Your task to perform on an android device: turn off priority inbox in the gmail app Image 0: 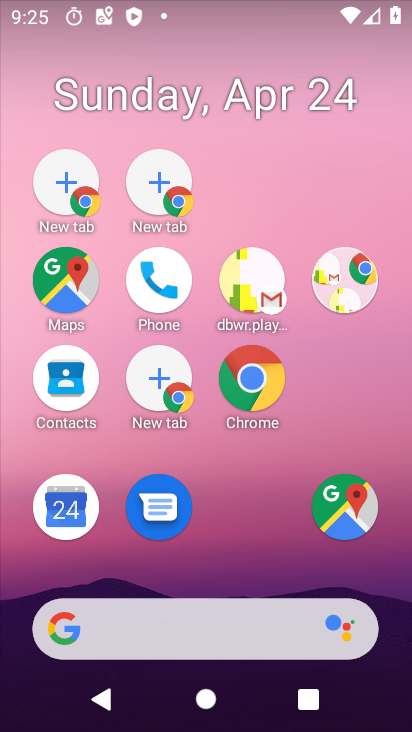
Step 0: drag from (276, 576) to (260, 142)
Your task to perform on an android device: turn off priority inbox in the gmail app Image 1: 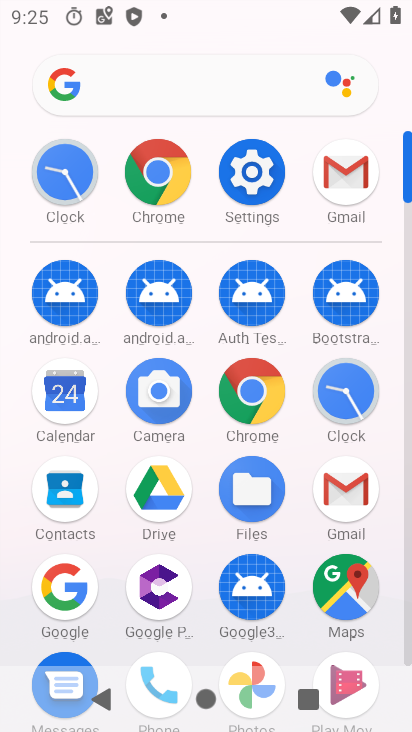
Step 1: click (333, 481)
Your task to perform on an android device: turn off priority inbox in the gmail app Image 2: 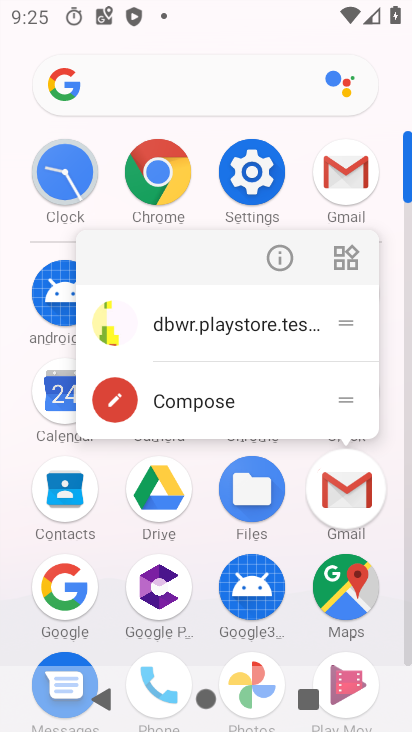
Step 2: click (334, 483)
Your task to perform on an android device: turn off priority inbox in the gmail app Image 3: 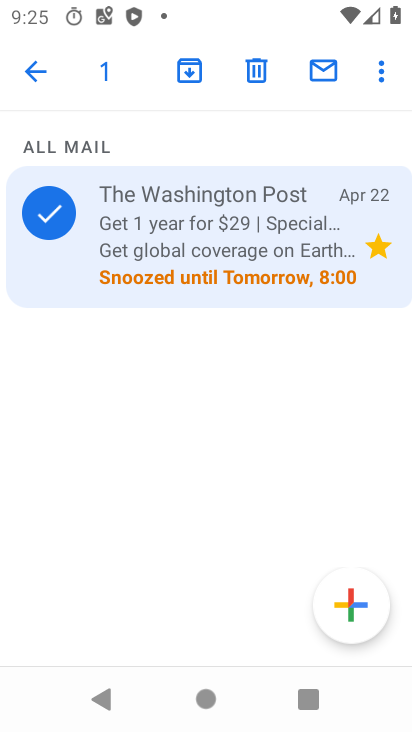
Step 3: click (21, 73)
Your task to perform on an android device: turn off priority inbox in the gmail app Image 4: 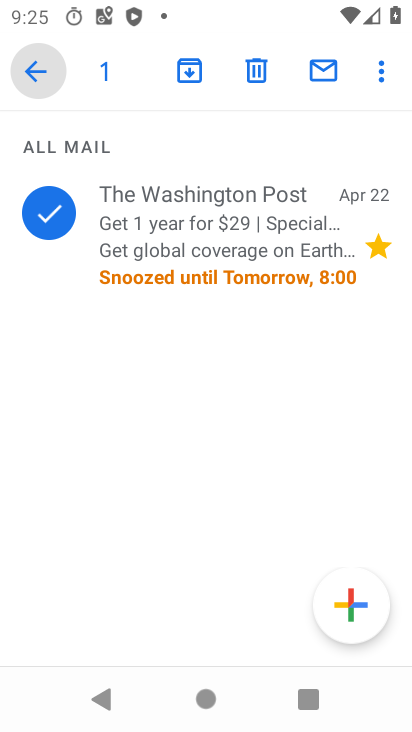
Step 4: click (23, 72)
Your task to perform on an android device: turn off priority inbox in the gmail app Image 5: 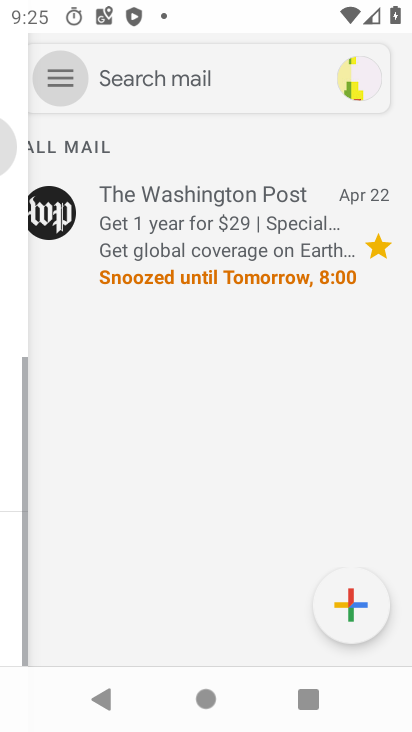
Step 5: click (23, 72)
Your task to perform on an android device: turn off priority inbox in the gmail app Image 6: 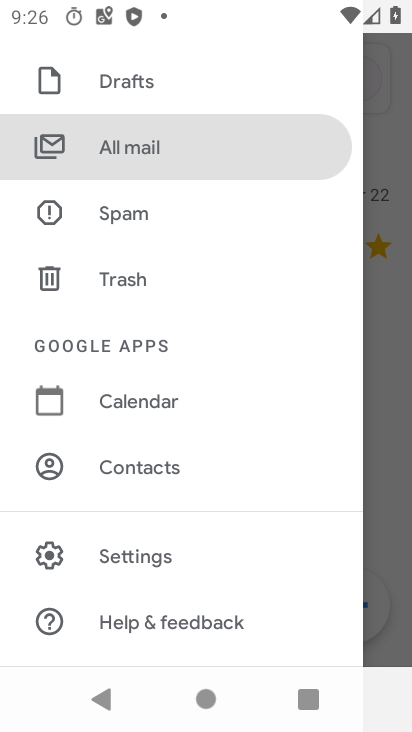
Step 6: click (131, 557)
Your task to perform on an android device: turn off priority inbox in the gmail app Image 7: 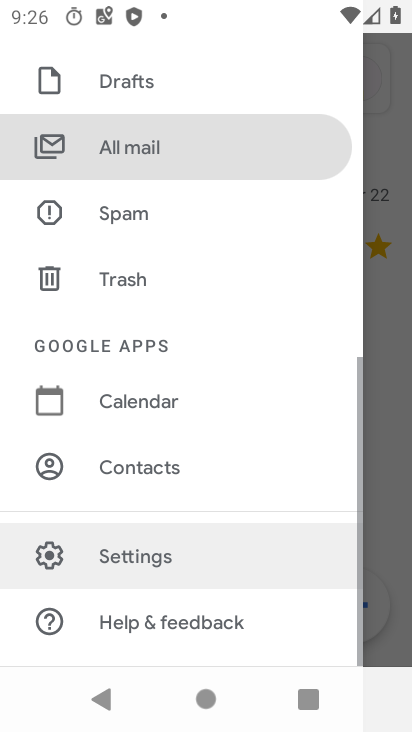
Step 7: click (131, 558)
Your task to perform on an android device: turn off priority inbox in the gmail app Image 8: 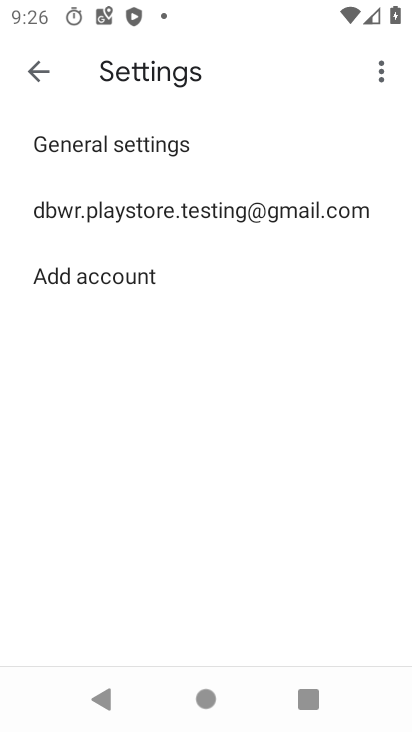
Step 8: click (127, 210)
Your task to perform on an android device: turn off priority inbox in the gmail app Image 9: 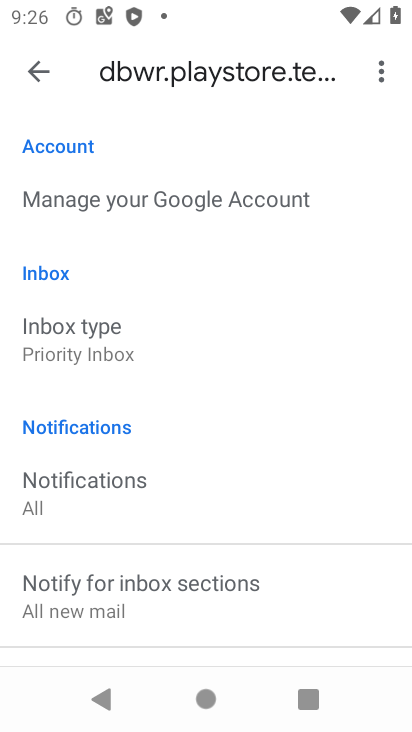
Step 9: click (61, 341)
Your task to perform on an android device: turn off priority inbox in the gmail app Image 10: 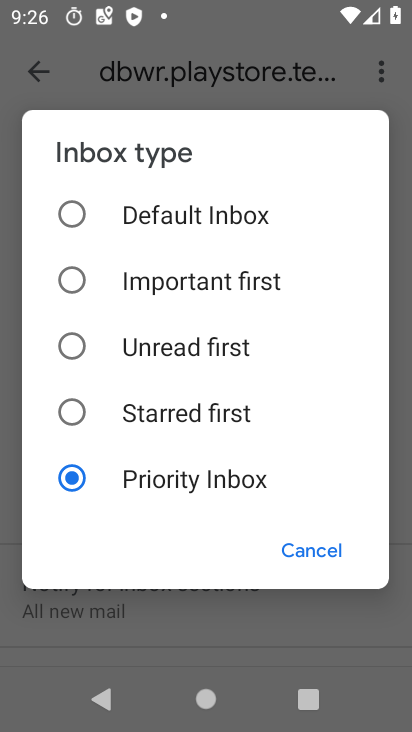
Step 10: click (63, 413)
Your task to perform on an android device: turn off priority inbox in the gmail app Image 11: 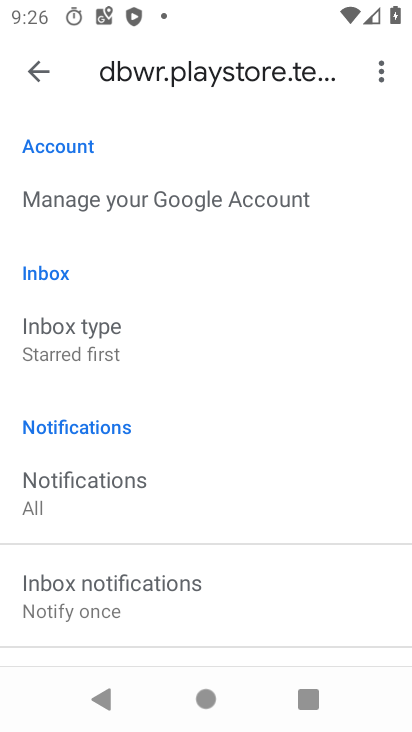
Step 11: task complete